Your task to perform on an android device: Toggle the flashlight Image 0: 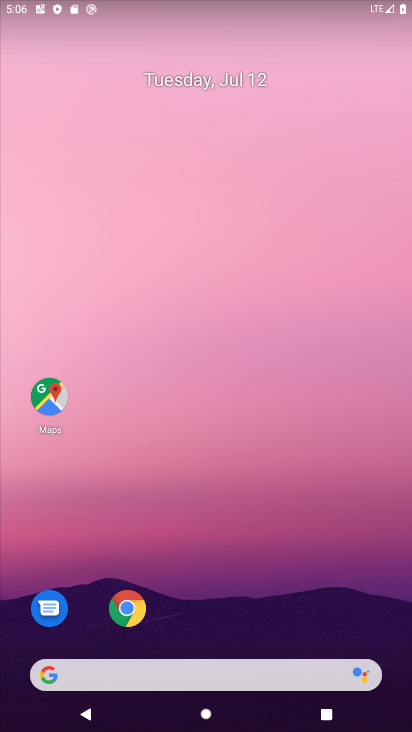
Step 0: drag from (221, 5) to (228, 471)
Your task to perform on an android device: Toggle the flashlight Image 1: 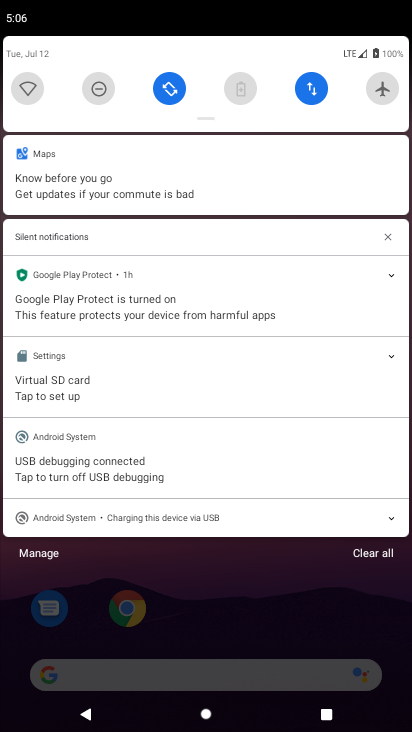
Step 1: drag from (206, 57) to (220, 632)
Your task to perform on an android device: Toggle the flashlight Image 2: 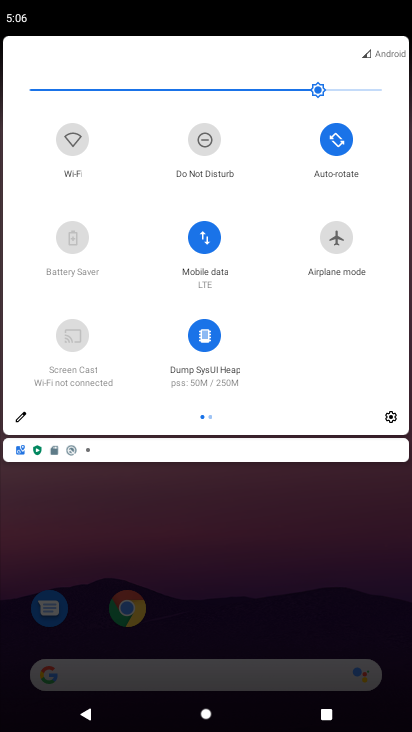
Step 2: click (387, 411)
Your task to perform on an android device: Toggle the flashlight Image 3: 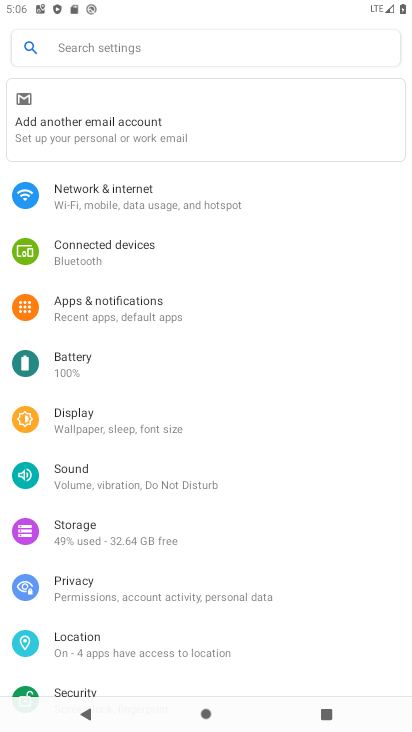
Step 3: task complete